Your task to perform on an android device: delete browsing data in the chrome app Image 0: 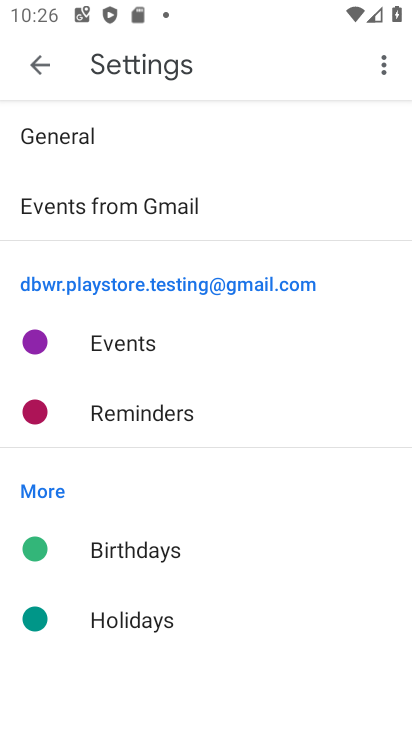
Step 0: press back button
Your task to perform on an android device: delete browsing data in the chrome app Image 1: 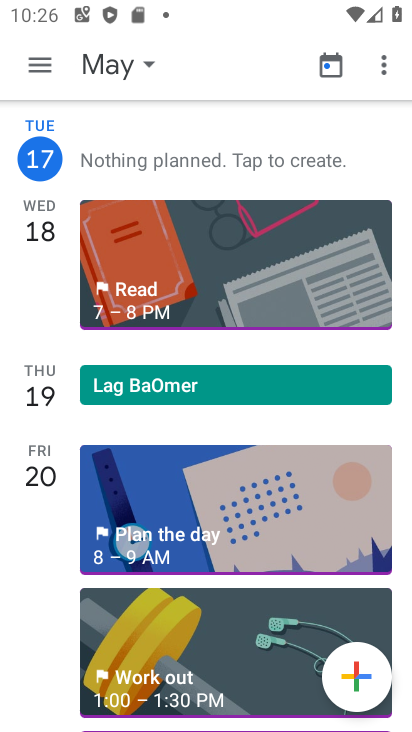
Step 1: press back button
Your task to perform on an android device: delete browsing data in the chrome app Image 2: 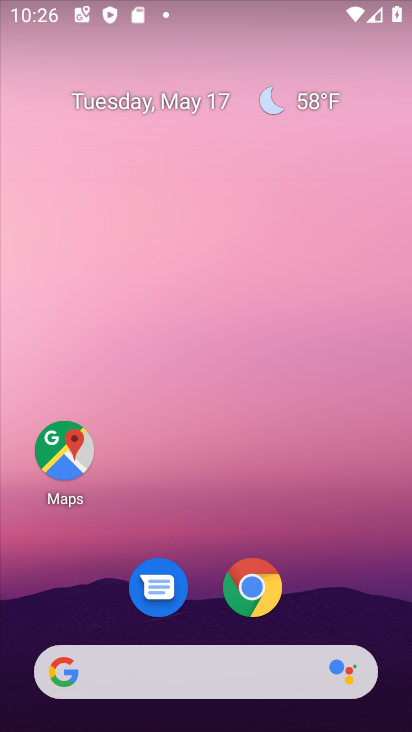
Step 2: click (252, 587)
Your task to perform on an android device: delete browsing data in the chrome app Image 3: 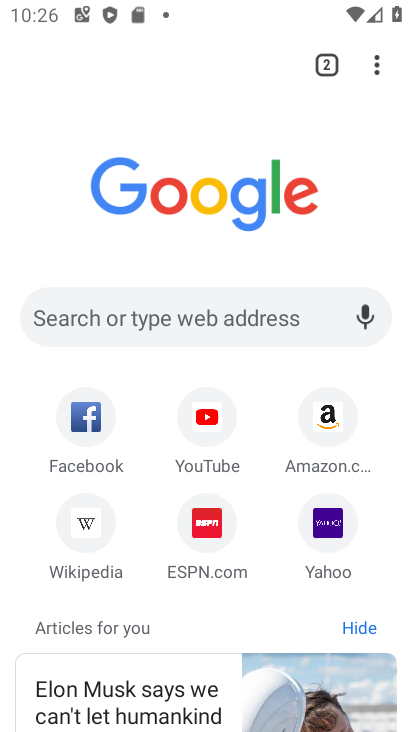
Step 3: click (378, 67)
Your task to perform on an android device: delete browsing data in the chrome app Image 4: 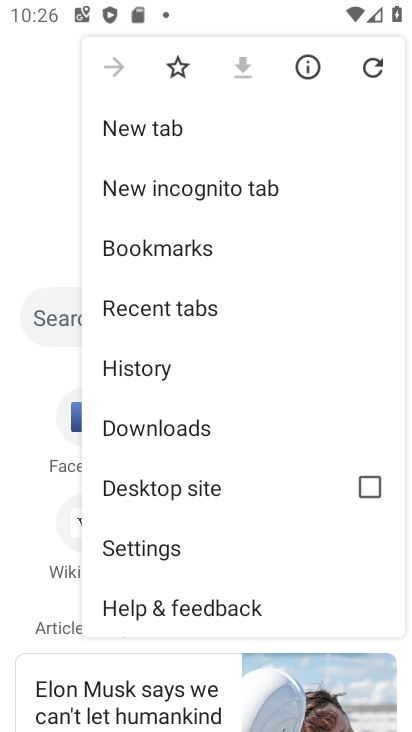
Step 4: click (137, 546)
Your task to perform on an android device: delete browsing data in the chrome app Image 5: 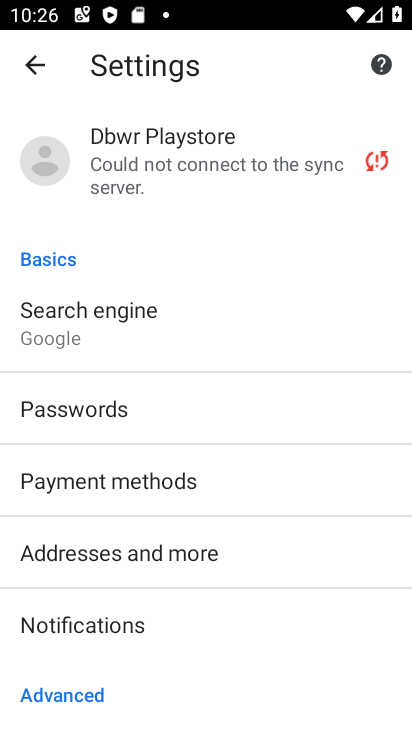
Step 5: drag from (154, 613) to (188, 530)
Your task to perform on an android device: delete browsing data in the chrome app Image 6: 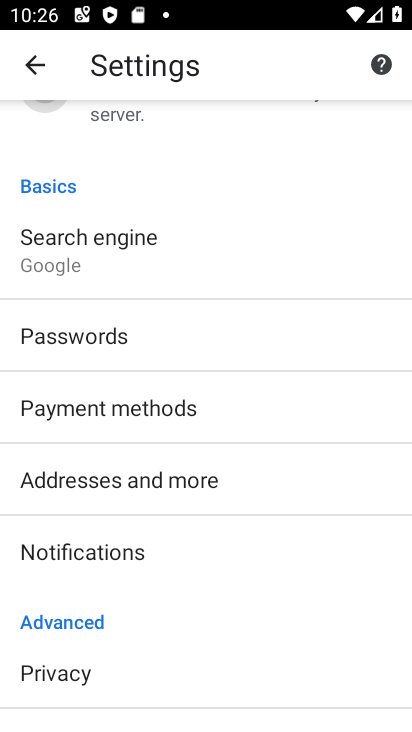
Step 6: drag from (182, 603) to (233, 515)
Your task to perform on an android device: delete browsing data in the chrome app Image 7: 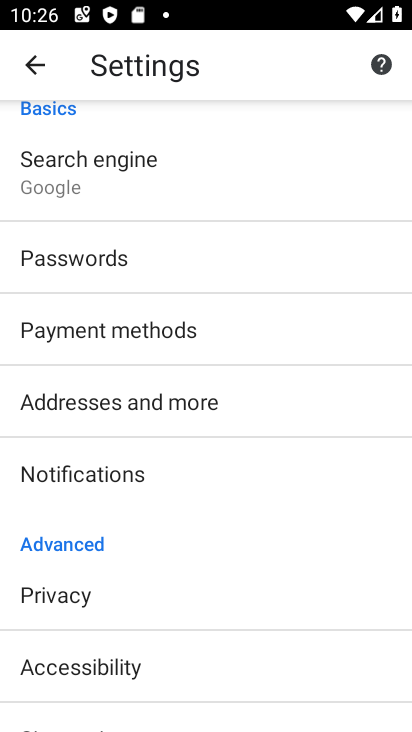
Step 7: drag from (136, 530) to (212, 421)
Your task to perform on an android device: delete browsing data in the chrome app Image 8: 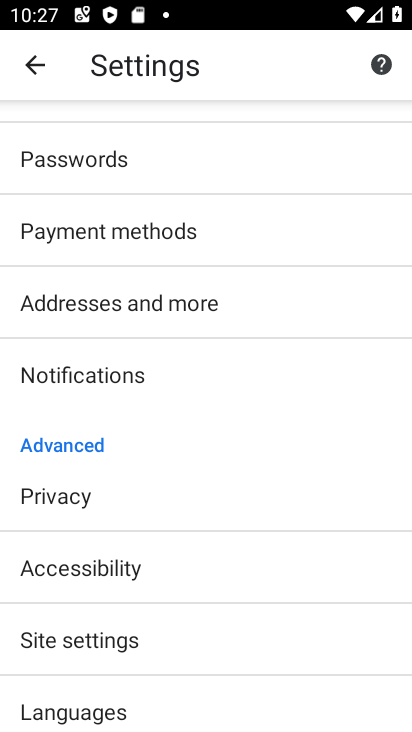
Step 8: drag from (154, 523) to (204, 444)
Your task to perform on an android device: delete browsing data in the chrome app Image 9: 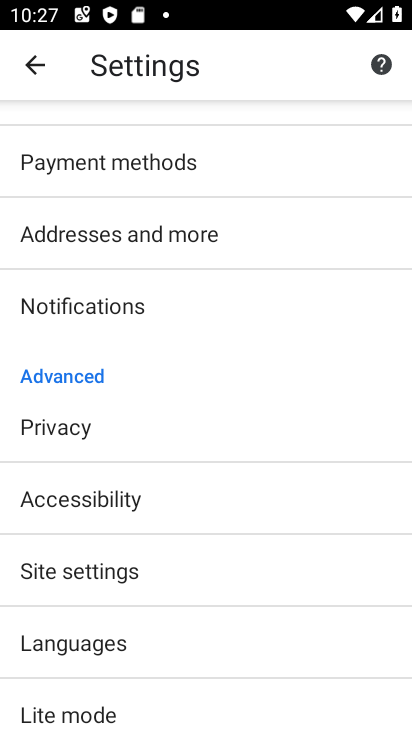
Step 9: drag from (119, 561) to (187, 478)
Your task to perform on an android device: delete browsing data in the chrome app Image 10: 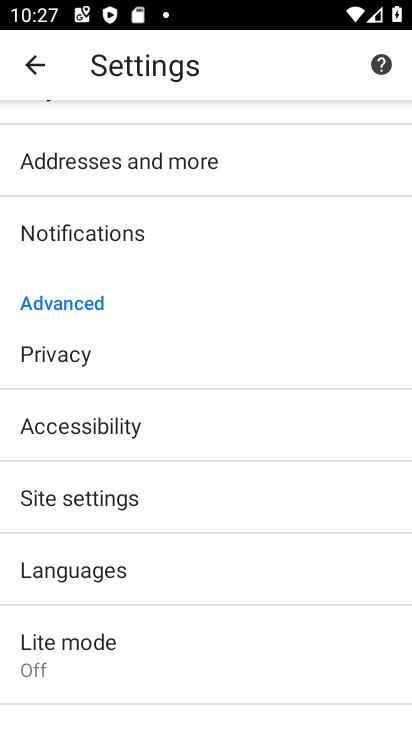
Step 10: drag from (136, 545) to (187, 468)
Your task to perform on an android device: delete browsing data in the chrome app Image 11: 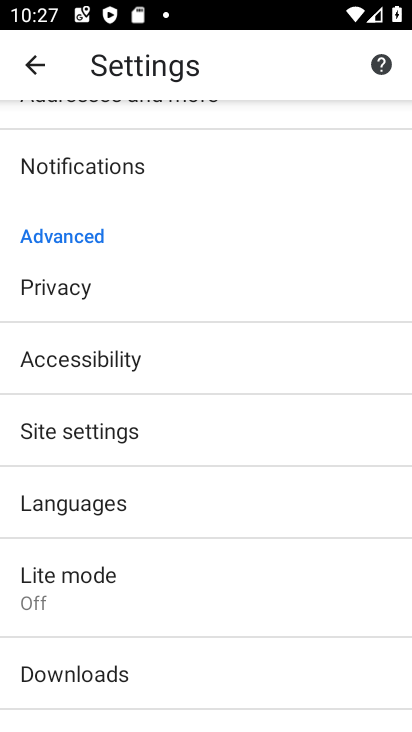
Step 11: click (74, 287)
Your task to perform on an android device: delete browsing data in the chrome app Image 12: 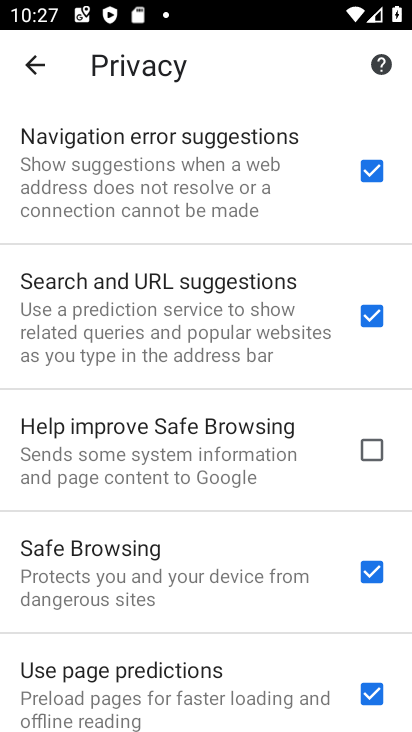
Step 12: drag from (203, 595) to (214, 512)
Your task to perform on an android device: delete browsing data in the chrome app Image 13: 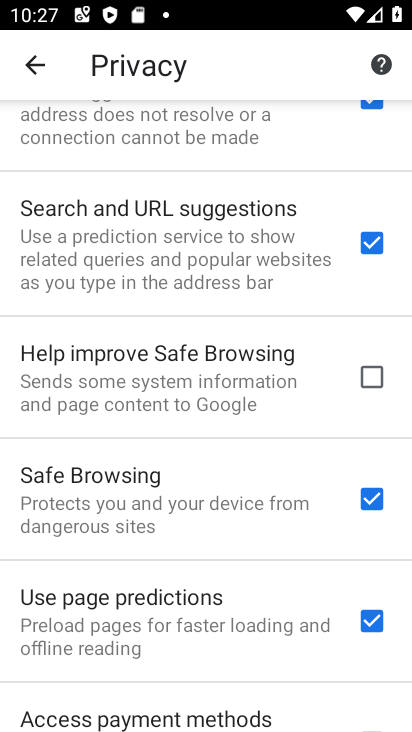
Step 13: drag from (241, 602) to (273, 527)
Your task to perform on an android device: delete browsing data in the chrome app Image 14: 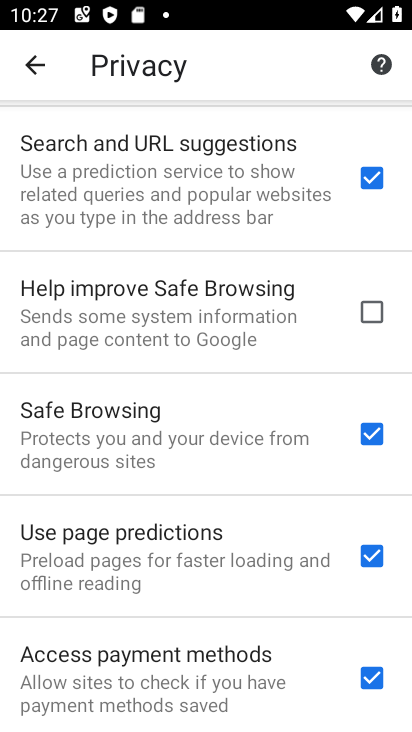
Step 14: drag from (208, 636) to (221, 546)
Your task to perform on an android device: delete browsing data in the chrome app Image 15: 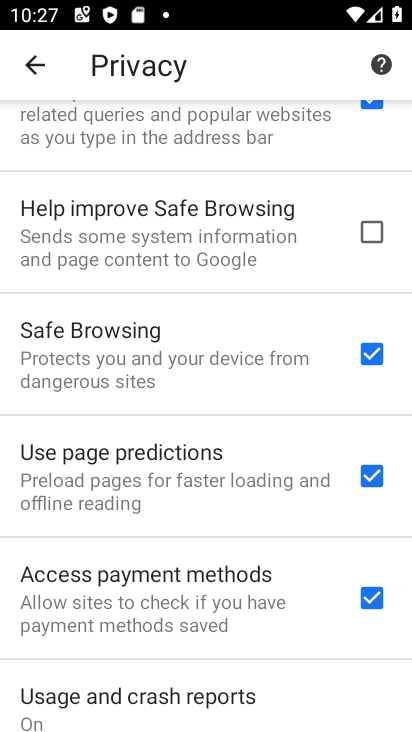
Step 15: drag from (125, 643) to (217, 524)
Your task to perform on an android device: delete browsing data in the chrome app Image 16: 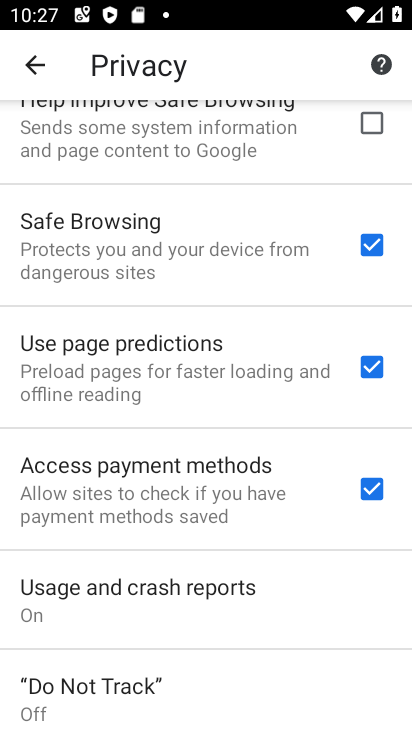
Step 16: drag from (167, 622) to (227, 537)
Your task to perform on an android device: delete browsing data in the chrome app Image 17: 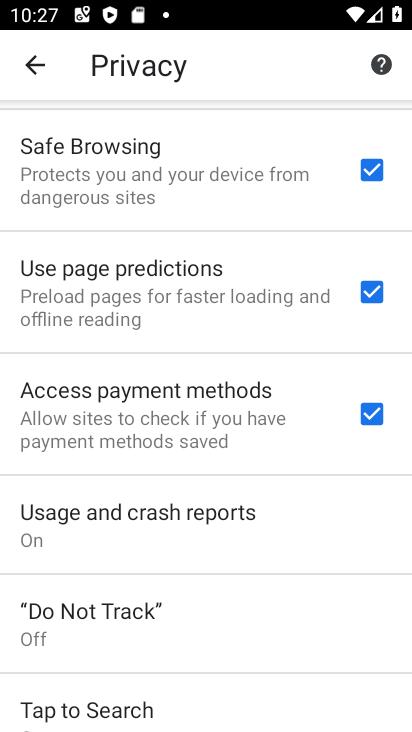
Step 17: drag from (142, 647) to (211, 554)
Your task to perform on an android device: delete browsing data in the chrome app Image 18: 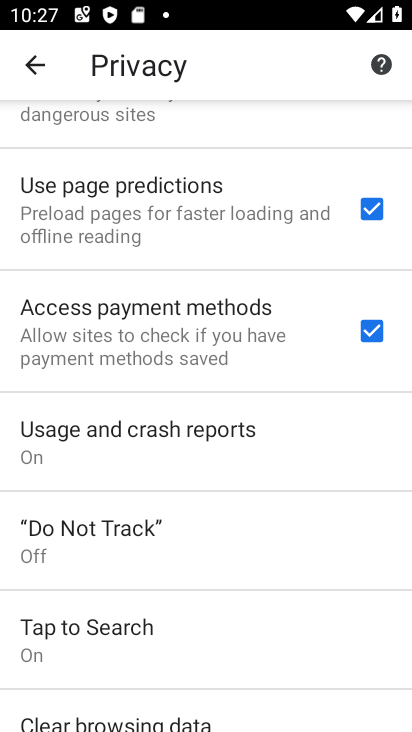
Step 18: drag from (154, 668) to (203, 586)
Your task to perform on an android device: delete browsing data in the chrome app Image 19: 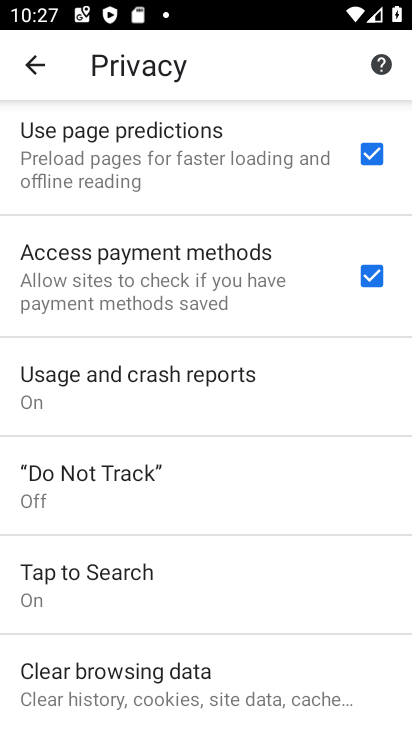
Step 19: click (178, 668)
Your task to perform on an android device: delete browsing data in the chrome app Image 20: 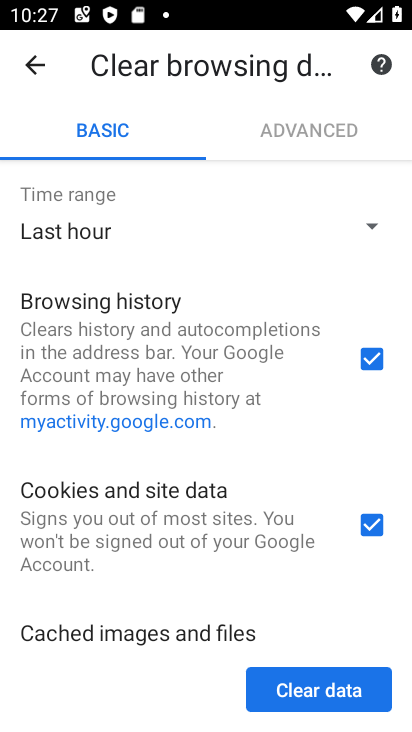
Step 20: click (283, 681)
Your task to perform on an android device: delete browsing data in the chrome app Image 21: 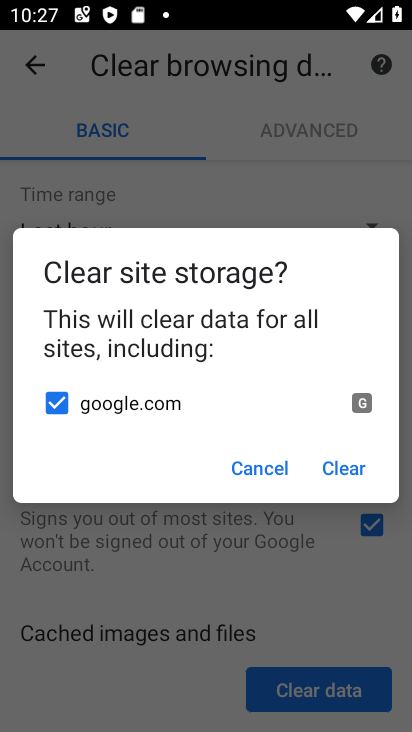
Step 21: click (342, 472)
Your task to perform on an android device: delete browsing data in the chrome app Image 22: 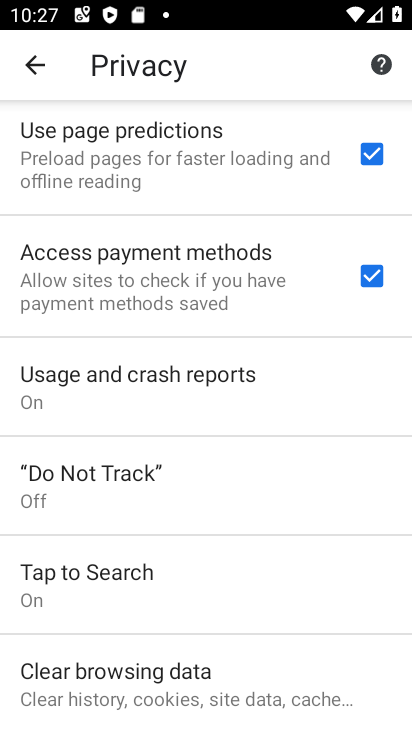
Step 22: task complete